Your task to perform on an android device: turn on javascript in the chrome app Image 0: 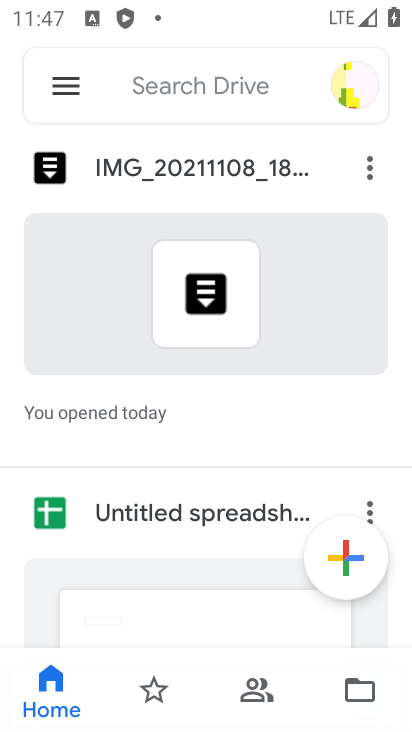
Step 0: press home button
Your task to perform on an android device: turn on javascript in the chrome app Image 1: 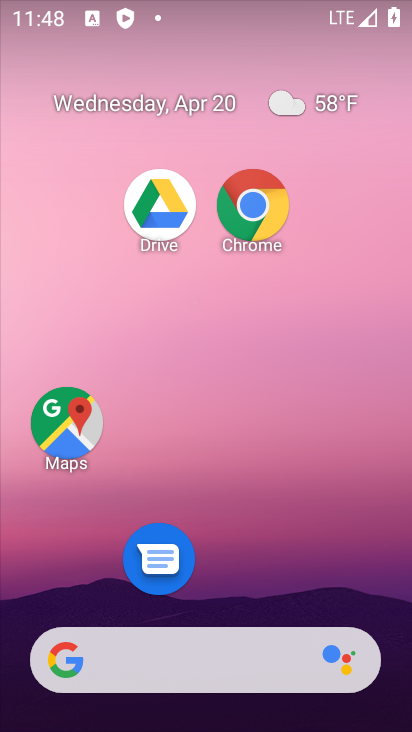
Step 1: drag from (253, 667) to (292, 21)
Your task to perform on an android device: turn on javascript in the chrome app Image 2: 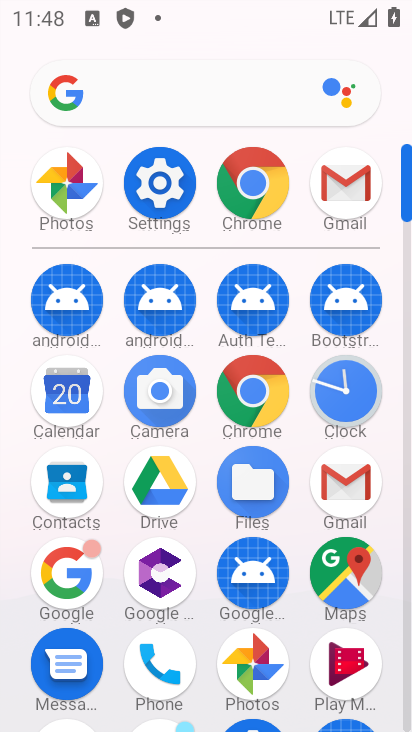
Step 2: click (264, 409)
Your task to perform on an android device: turn on javascript in the chrome app Image 3: 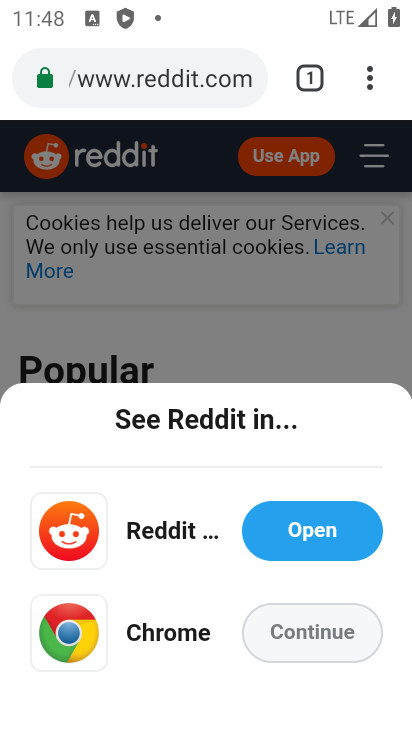
Step 3: drag from (376, 74) to (175, 623)
Your task to perform on an android device: turn on javascript in the chrome app Image 4: 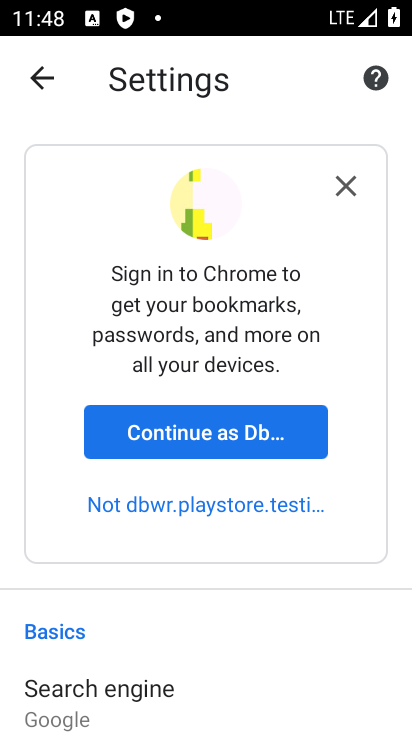
Step 4: drag from (166, 613) to (176, 215)
Your task to perform on an android device: turn on javascript in the chrome app Image 5: 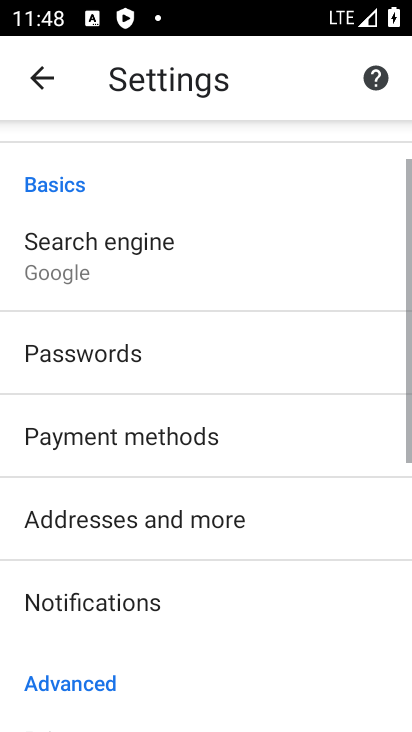
Step 5: drag from (172, 633) to (168, 347)
Your task to perform on an android device: turn on javascript in the chrome app Image 6: 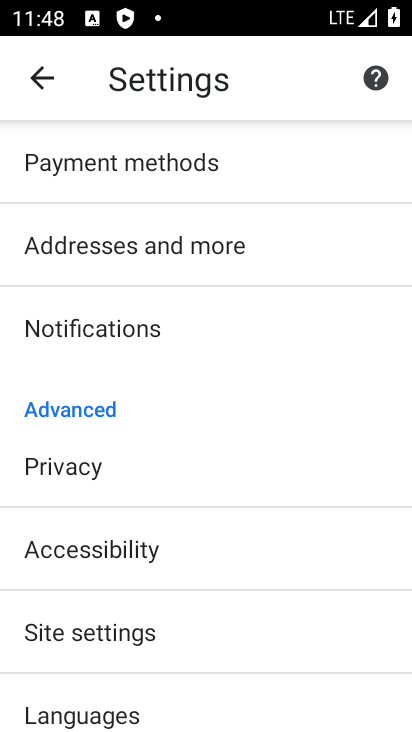
Step 6: click (123, 642)
Your task to perform on an android device: turn on javascript in the chrome app Image 7: 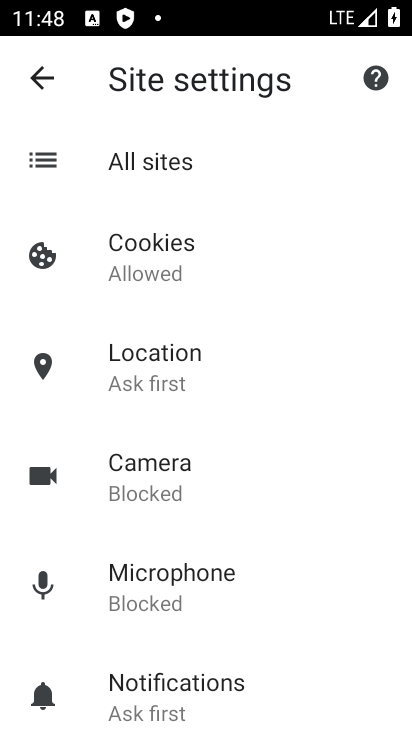
Step 7: drag from (167, 715) to (126, 179)
Your task to perform on an android device: turn on javascript in the chrome app Image 8: 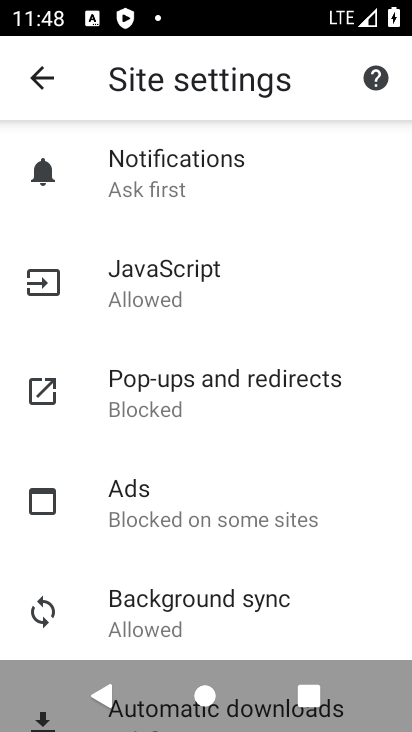
Step 8: click (219, 295)
Your task to perform on an android device: turn on javascript in the chrome app Image 9: 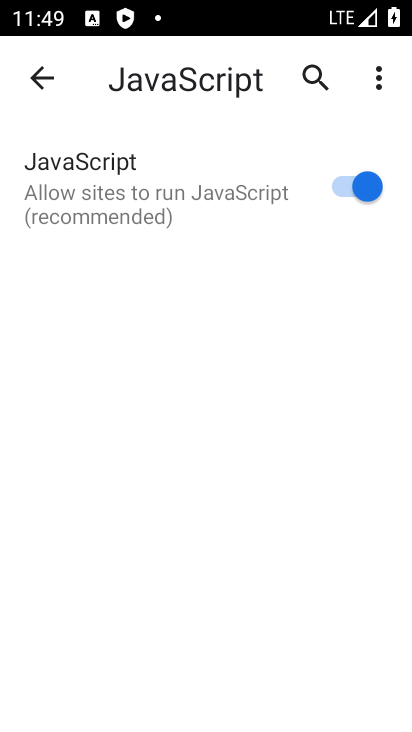
Step 9: task complete